Your task to perform on an android device: Open the calendar app, open the side menu, and click the "Day" option Image 0: 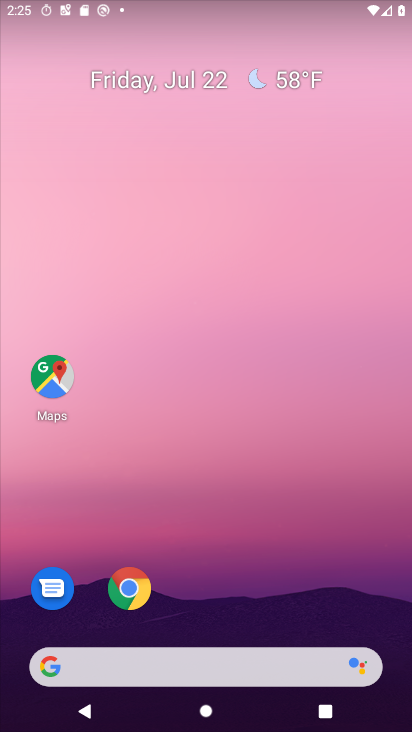
Step 0: press home button
Your task to perform on an android device: Open the calendar app, open the side menu, and click the "Day" option Image 1: 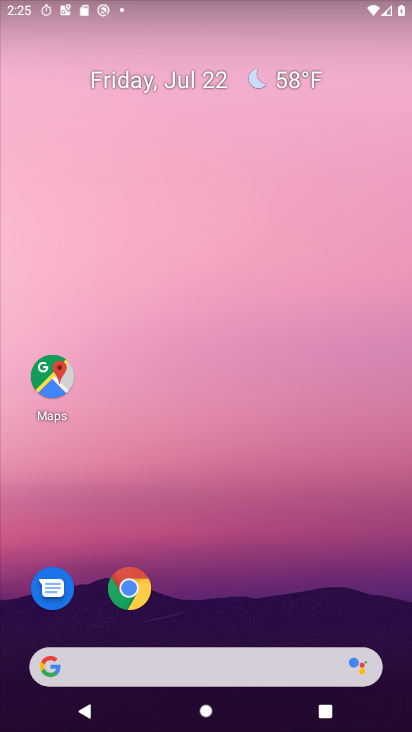
Step 1: drag from (209, 604) to (167, 327)
Your task to perform on an android device: Open the calendar app, open the side menu, and click the "Day" option Image 2: 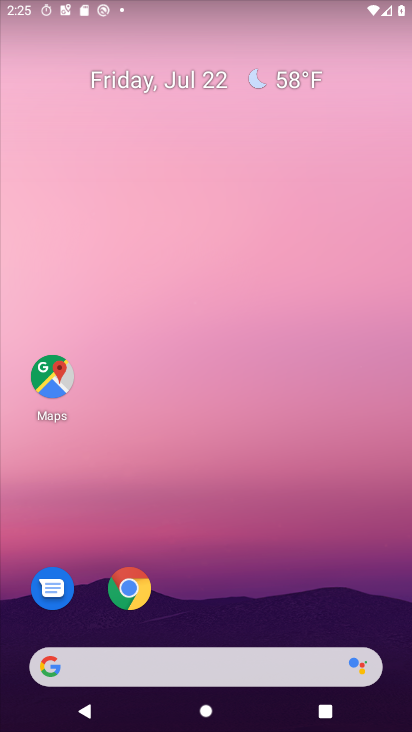
Step 2: drag from (185, 671) to (186, 226)
Your task to perform on an android device: Open the calendar app, open the side menu, and click the "Day" option Image 3: 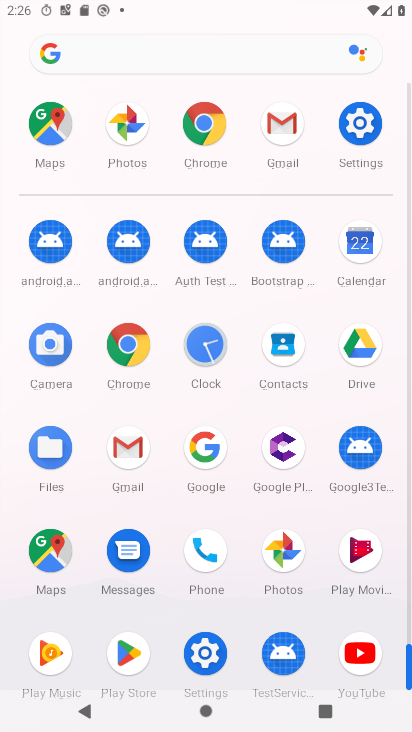
Step 3: click (380, 260)
Your task to perform on an android device: Open the calendar app, open the side menu, and click the "Day" option Image 4: 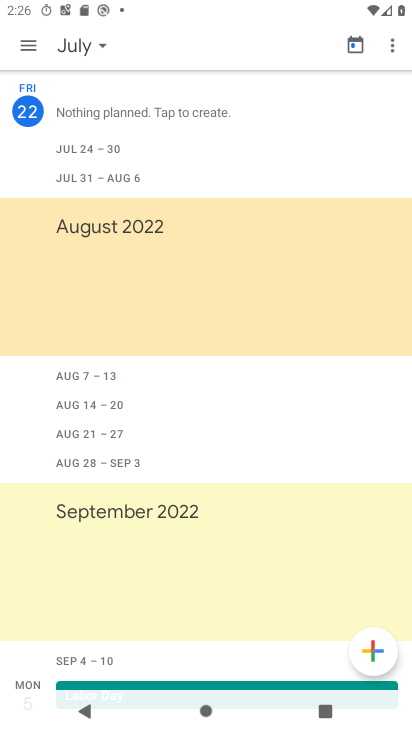
Step 4: click (93, 48)
Your task to perform on an android device: Open the calendar app, open the side menu, and click the "Day" option Image 5: 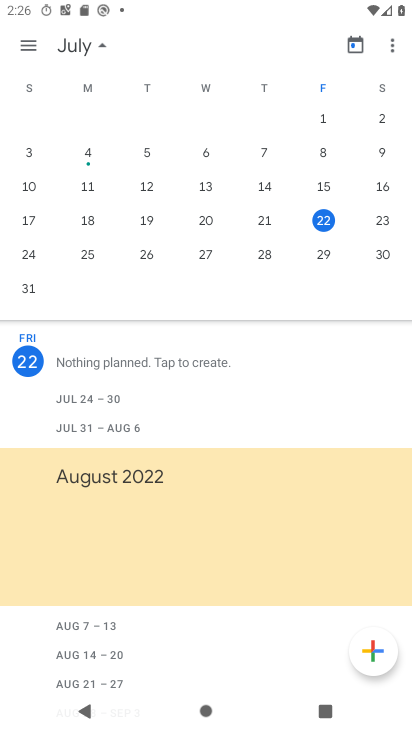
Step 5: click (29, 54)
Your task to perform on an android device: Open the calendar app, open the side menu, and click the "Day" option Image 6: 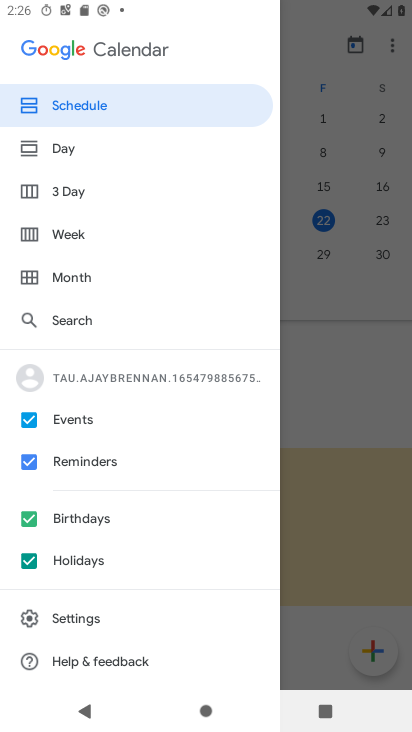
Step 6: click (70, 148)
Your task to perform on an android device: Open the calendar app, open the side menu, and click the "Day" option Image 7: 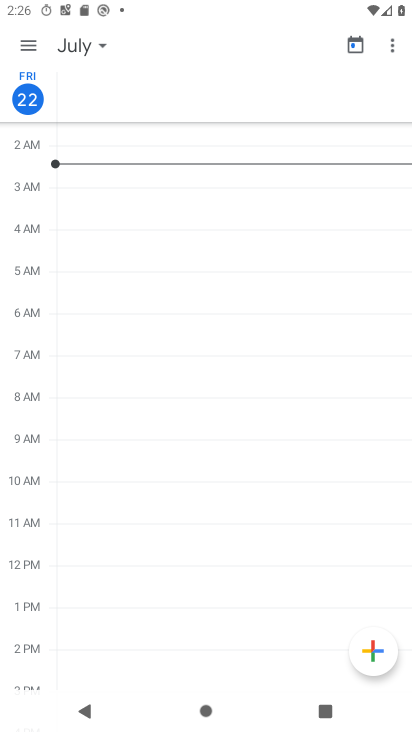
Step 7: task complete